Your task to perform on an android device: open chrome and create a bookmark for the current page Image 0: 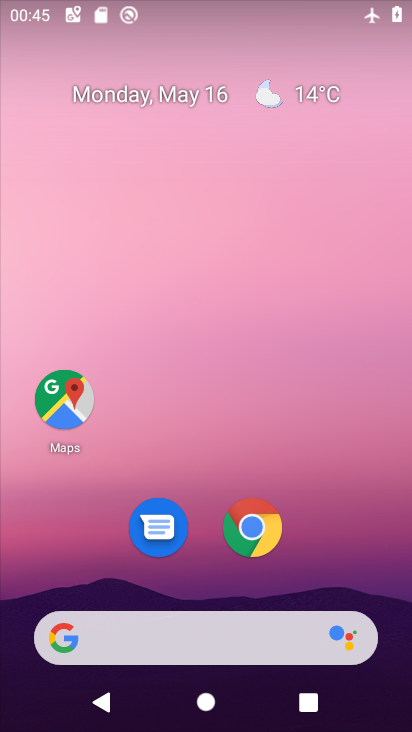
Step 0: click (266, 533)
Your task to perform on an android device: open chrome and create a bookmark for the current page Image 1: 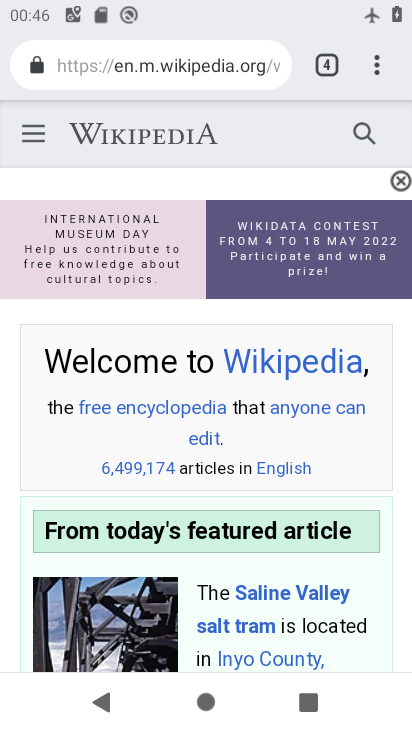
Step 1: click (375, 73)
Your task to perform on an android device: open chrome and create a bookmark for the current page Image 2: 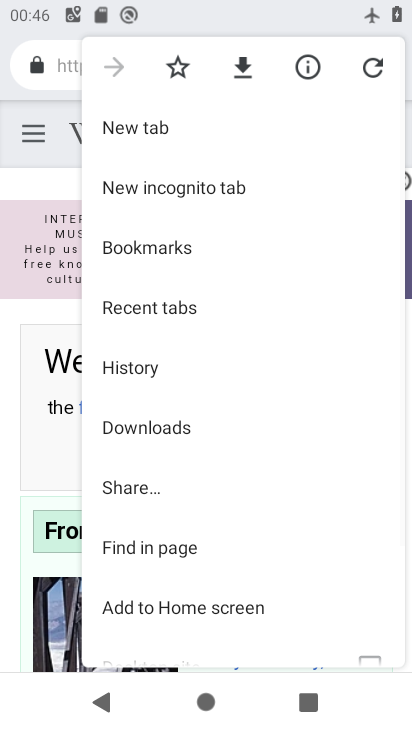
Step 2: click (183, 64)
Your task to perform on an android device: open chrome and create a bookmark for the current page Image 3: 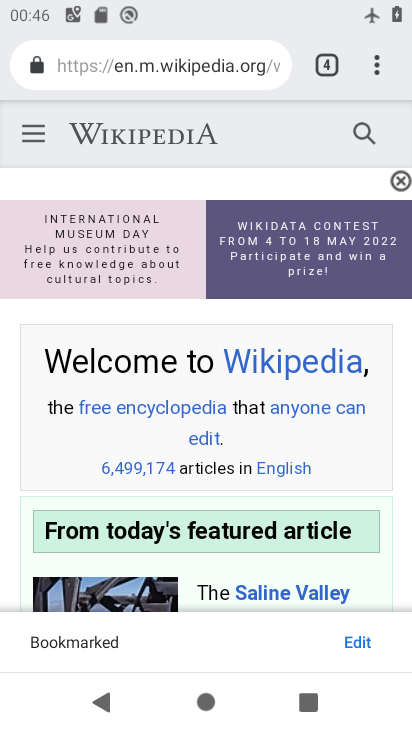
Step 3: task complete